Your task to perform on an android device: turn off airplane mode Image 0: 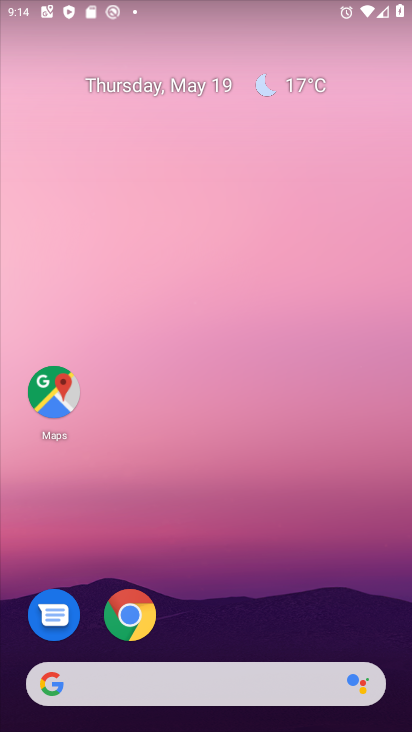
Step 0: press home button
Your task to perform on an android device: turn off airplane mode Image 1: 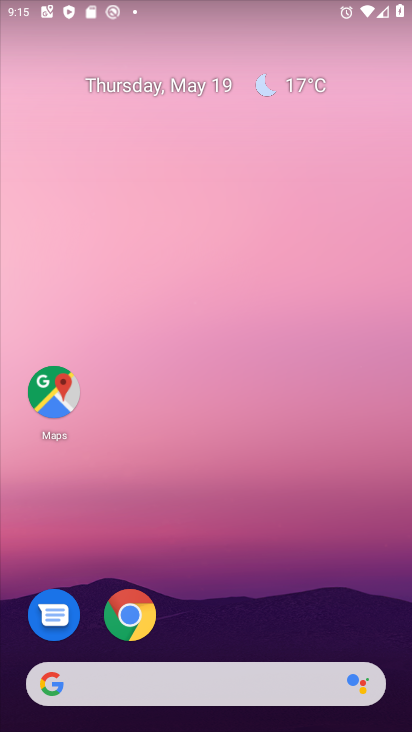
Step 1: task complete